Your task to perform on an android device: move a message to another label in the gmail app Image 0: 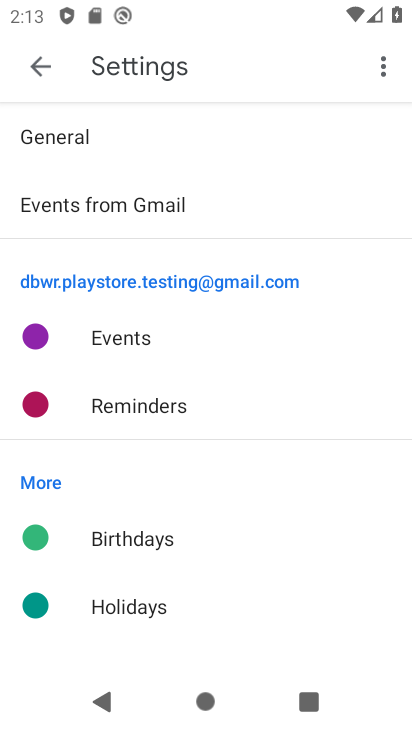
Step 0: press home button
Your task to perform on an android device: move a message to another label in the gmail app Image 1: 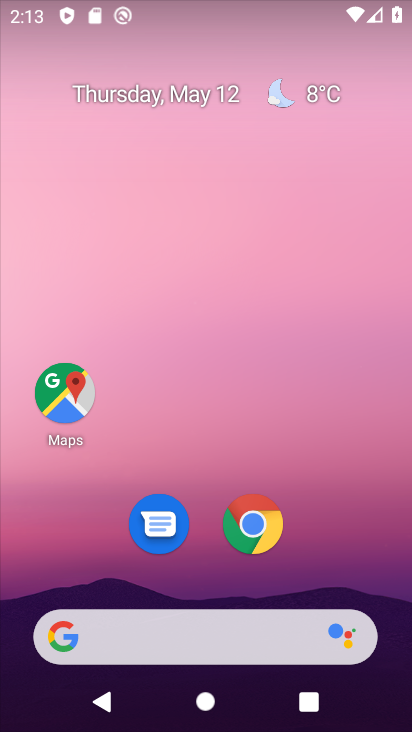
Step 1: drag from (197, 458) to (186, 17)
Your task to perform on an android device: move a message to another label in the gmail app Image 2: 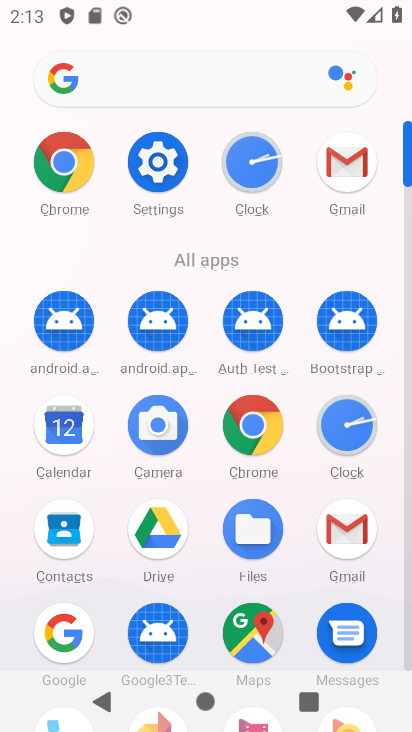
Step 2: click (349, 174)
Your task to perform on an android device: move a message to another label in the gmail app Image 3: 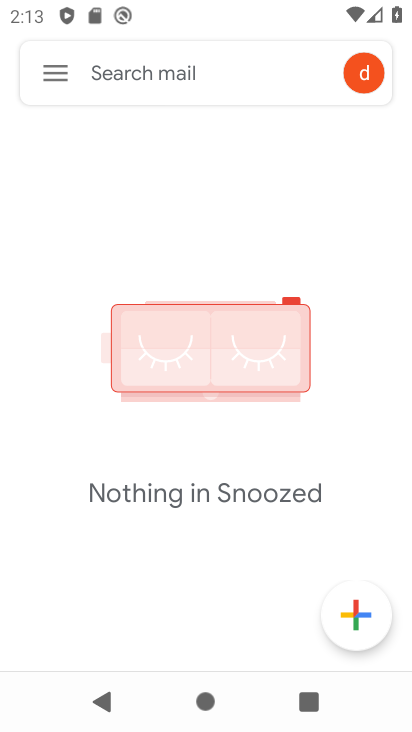
Step 3: click (59, 69)
Your task to perform on an android device: move a message to another label in the gmail app Image 4: 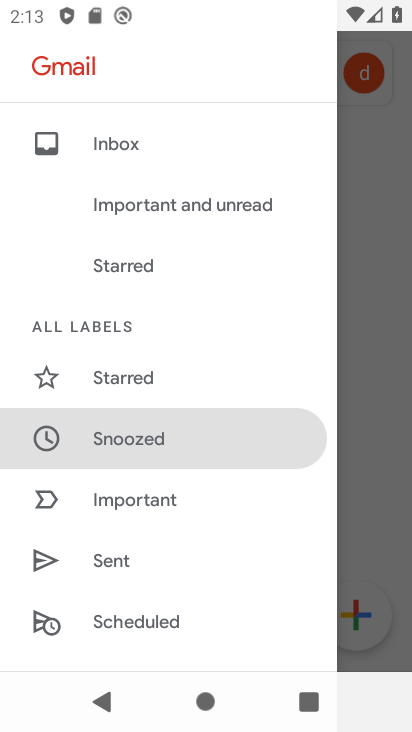
Step 4: drag from (183, 541) to (213, 163)
Your task to perform on an android device: move a message to another label in the gmail app Image 5: 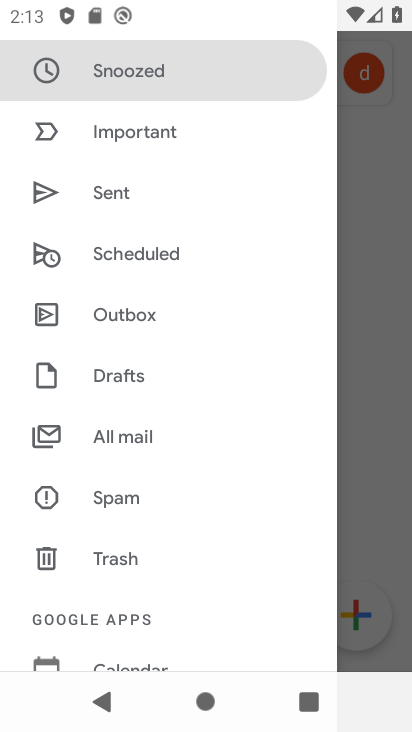
Step 5: click (134, 430)
Your task to perform on an android device: move a message to another label in the gmail app Image 6: 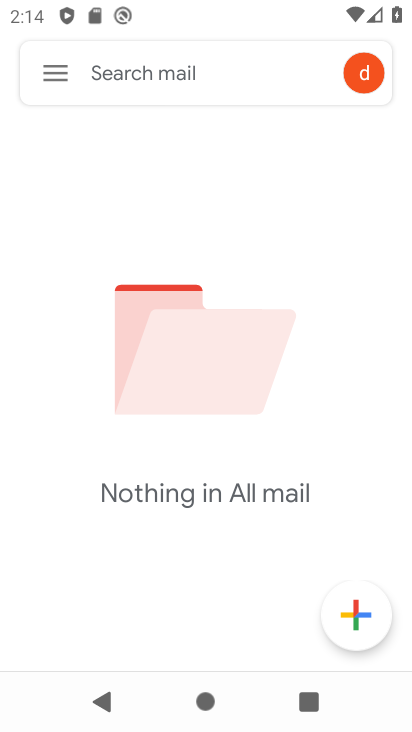
Step 6: task complete